Your task to perform on an android device: toggle sleep mode Image 0: 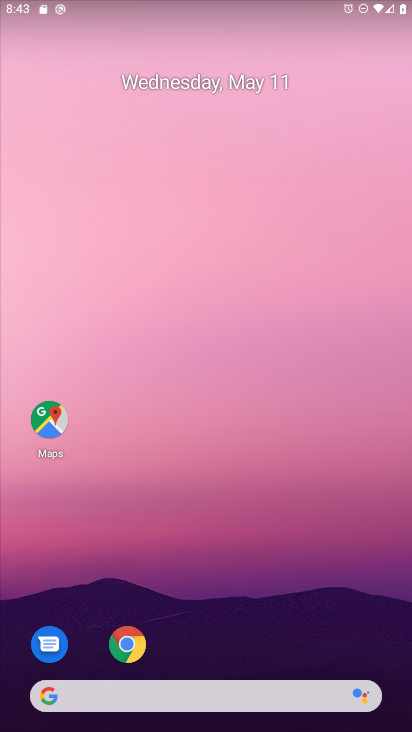
Step 0: click (109, 96)
Your task to perform on an android device: toggle sleep mode Image 1: 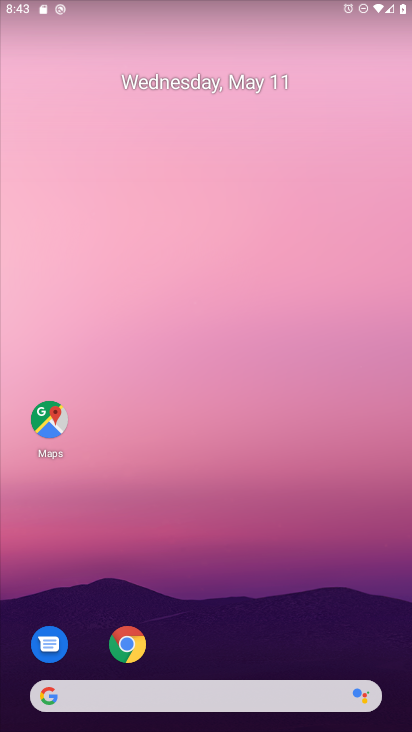
Step 1: drag from (231, 586) to (205, 74)
Your task to perform on an android device: toggle sleep mode Image 2: 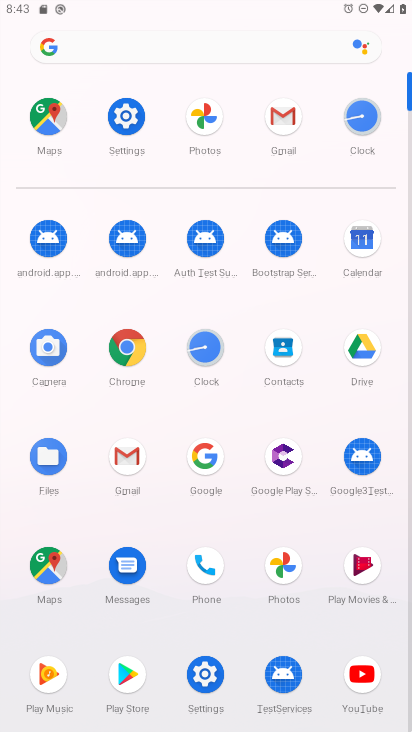
Step 2: click (128, 121)
Your task to perform on an android device: toggle sleep mode Image 3: 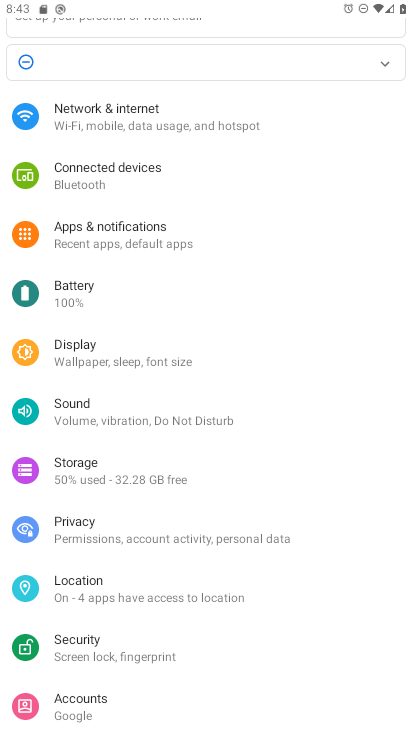
Step 3: click (77, 345)
Your task to perform on an android device: toggle sleep mode Image 4: 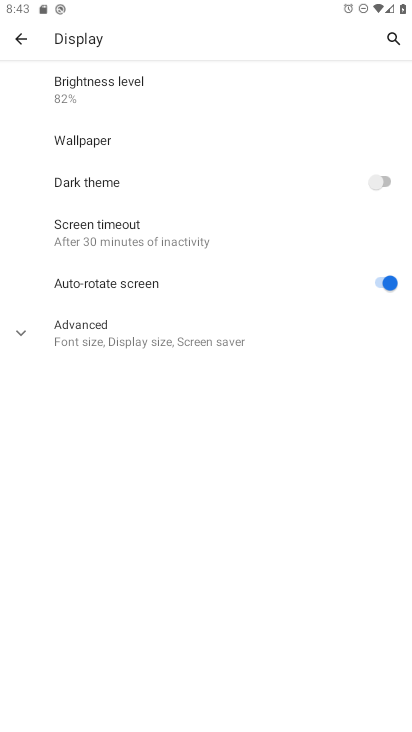
Step 4: click (97, 228)
Your task to perform on an android device: toggle sleep mode Image 5: 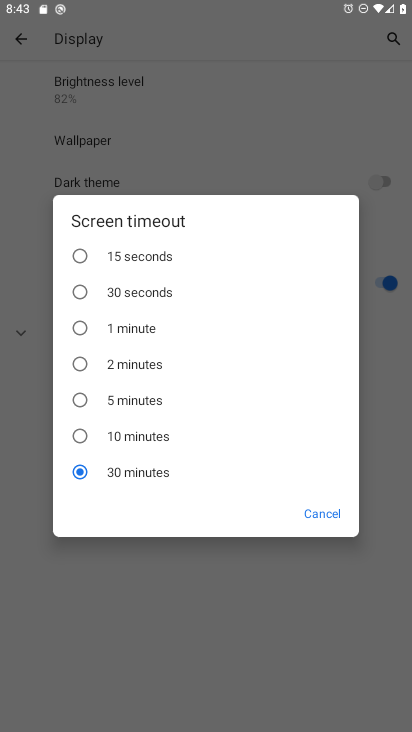
Step 5: click (308, 510)
Your task to perform on an android device: toggle sleep mode Image 6: 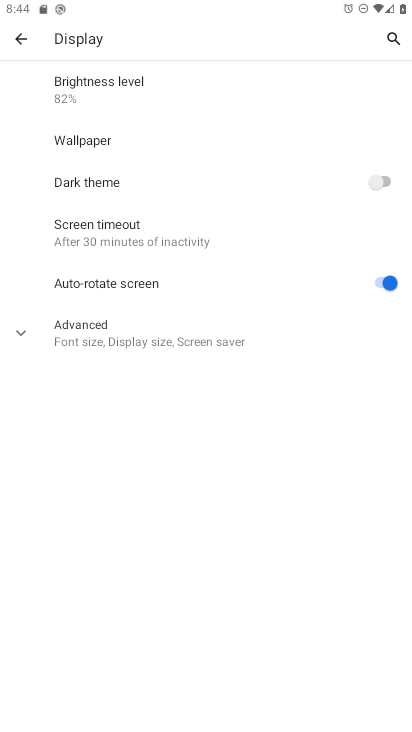
Step 6: click (10, 42)
Your task to perform on an android device: toggle sleep mode Image 7: 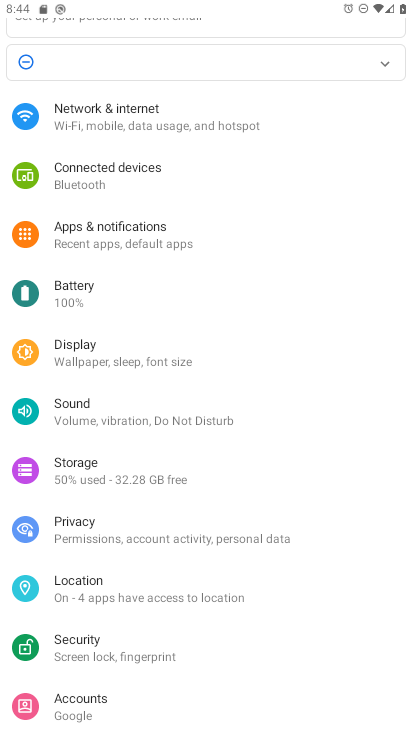
Step 7: task complete